Your task to perform on an android device: Search for sushi restaurants on Maps Image 0: 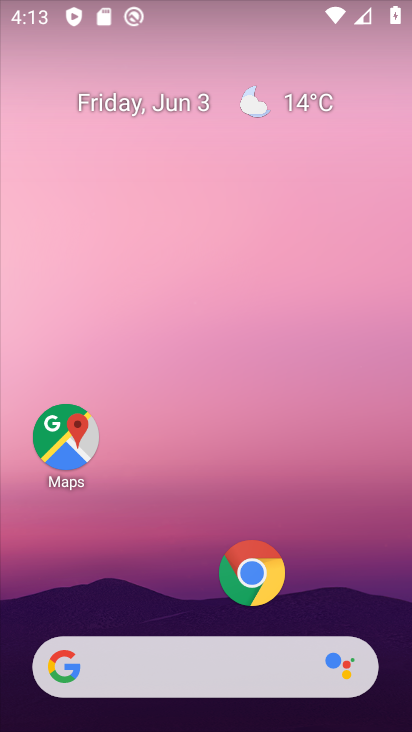
Step 0: drag from (242, 315) to (246, 177)
Your task to perform on an android device: Search for sushi restaurants on Maps Image 1: 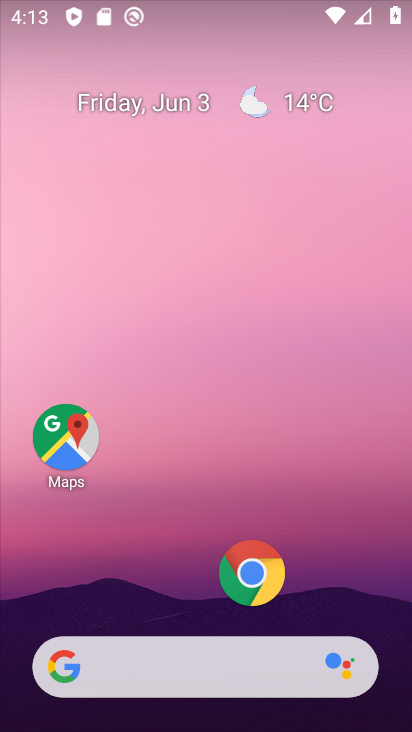
Step 1: drag from (167, 634) to (166, 148)
Your task to perform on an android device: Search for sushi restaurants on Maps Image 2: 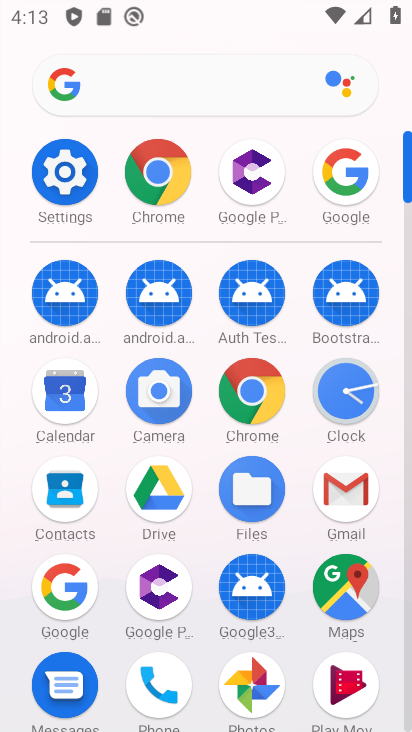
Step 2: click (343, 597)
Your task to perform on an android device: Search for sushi restaurants on Maps Image 3: 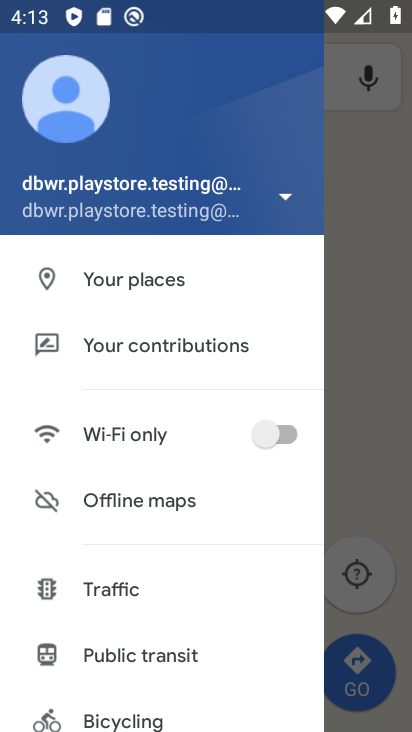
Step 3: click (347, 404)
Your task to perform on an android device: Search for sushi restaurants on Maps Image 4: 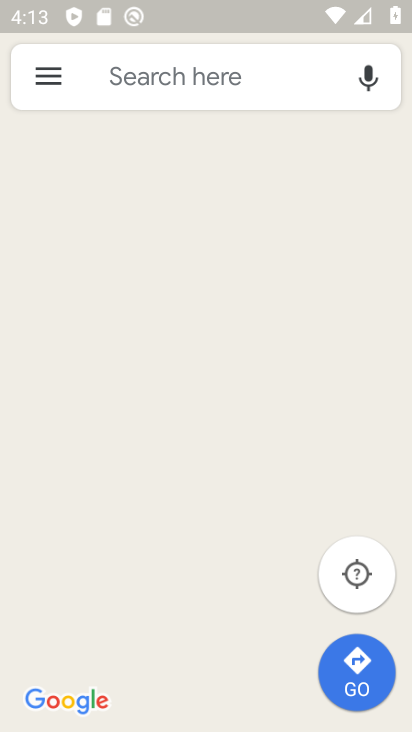
Step 4: click (216, 85)
Your task to perform on an android device: Search for sushi restaurants on Maps Image 5: 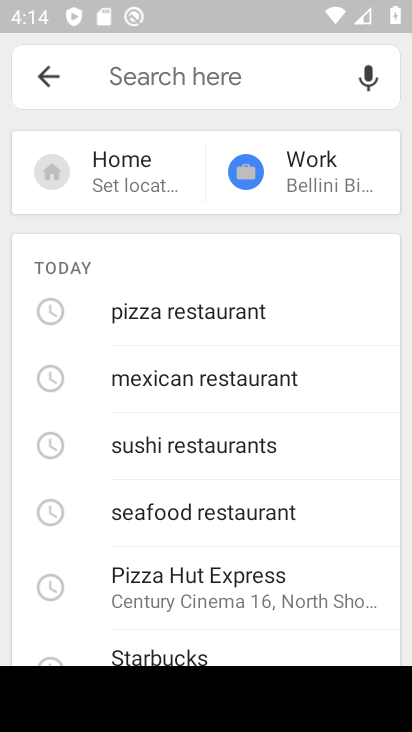
Step 5: click (193, 451)
Your task to perform on an android device: Search for sushi restaurants on Maps Image 6: 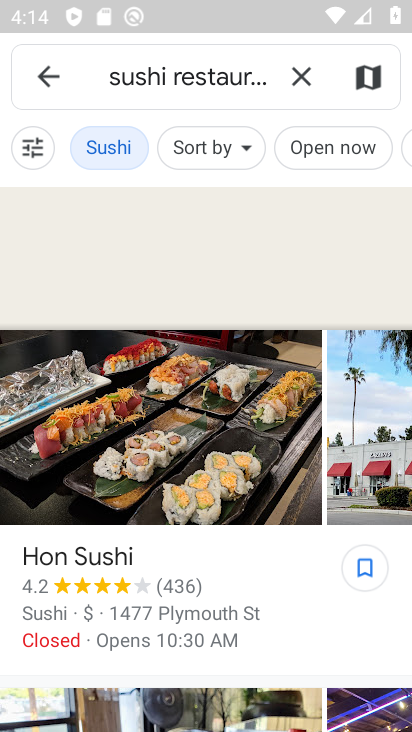
Step 6: task complete